Your task to perform on an android device: turn on location history Image 0: 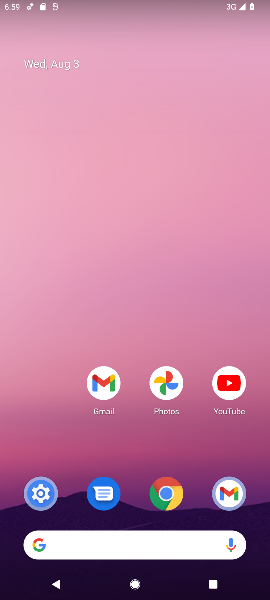
Step 0: drag from (116, 504) to (163, 73)
Your task to perform on an android device: turn on location history Image 1: 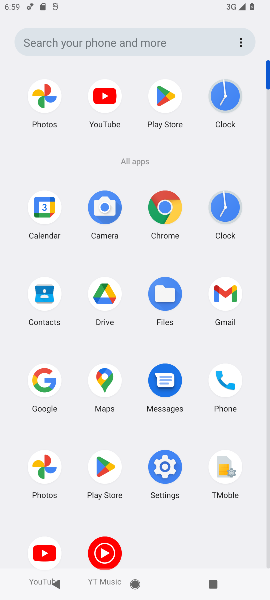
Step 1: click (157, 466)
Your task to perform on an android device: turn on location history Image 2: 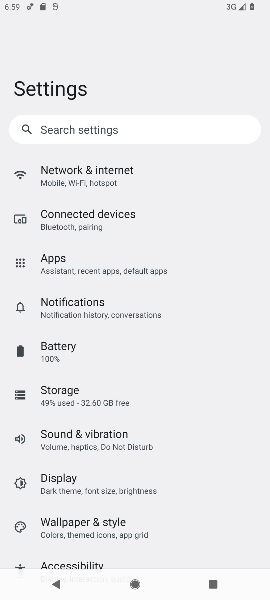
Step 2: drag from (94, 467) to (148, 234)
Your task to perform on an android device: turn on location history Image 3: 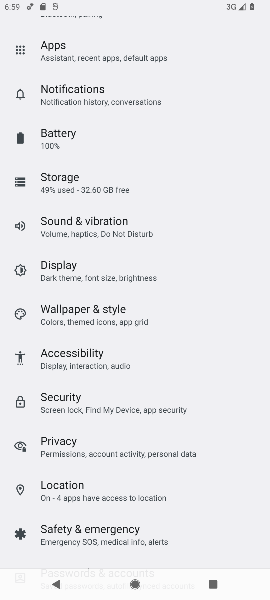
Step 3: click (96, 481)
Your task to perform on an android device: turn on location history Image 4: 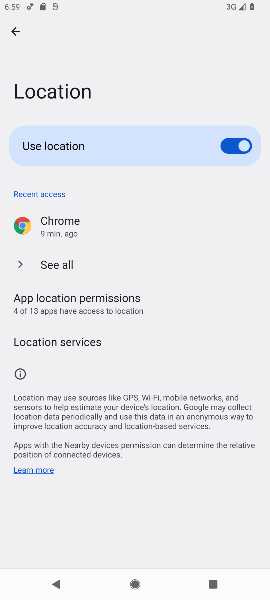
Step 4: click (75, 349)
Your task to perform on an android device: turn on location history Image 5: 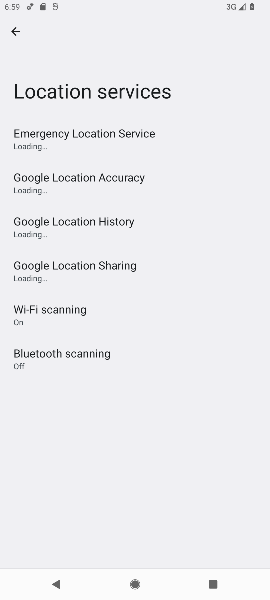
Step 5: click (113, 222)
Your task to perform on an android device: turn on location history Image 6: 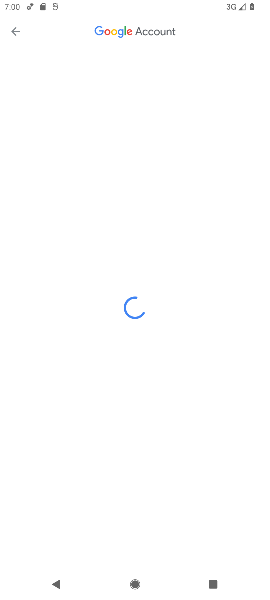
Step 6: task complete